Your task to perform on an android device: toggle priority inbox in the gmail app Image 0: 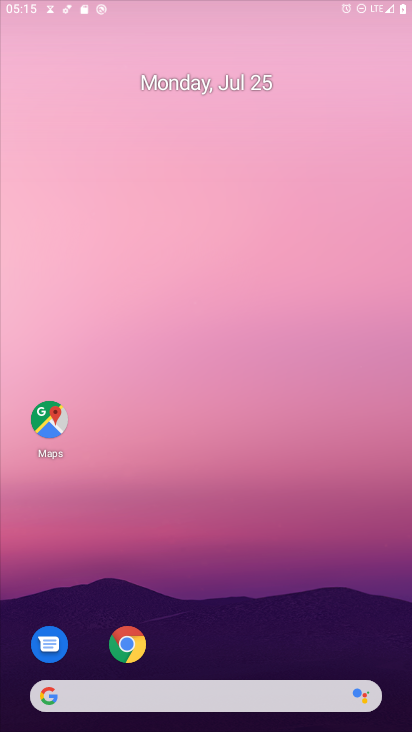
Step 0: press home button
Your task to perform on an android device: toggle priority inbox in the gmail app Image 1: 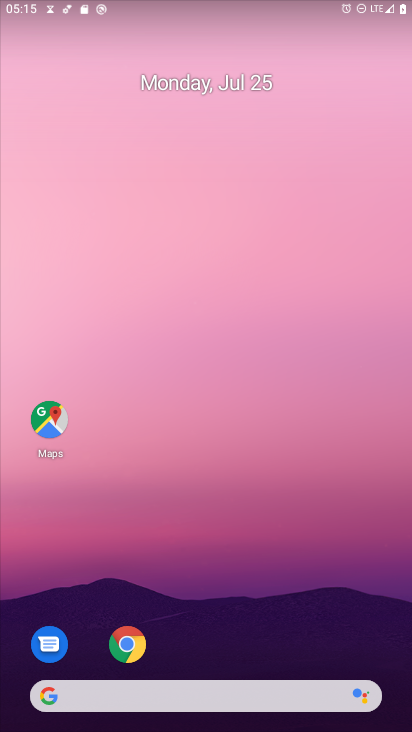
Step 1: drag from (267, 317) to (266, 82)
Your task to perform on an android device: toggle priority inbox in the gmail app Image 2: 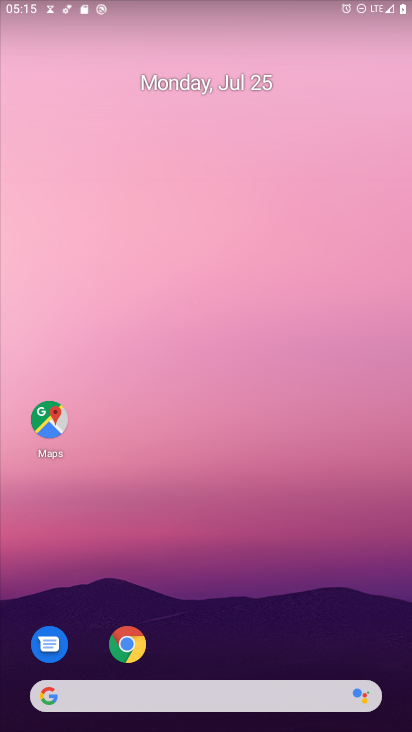
Step 2: drag from (264, 371) to (242, 20)
Your task to perform on an android device: toggle priority inbox in the gmail app Image 3: 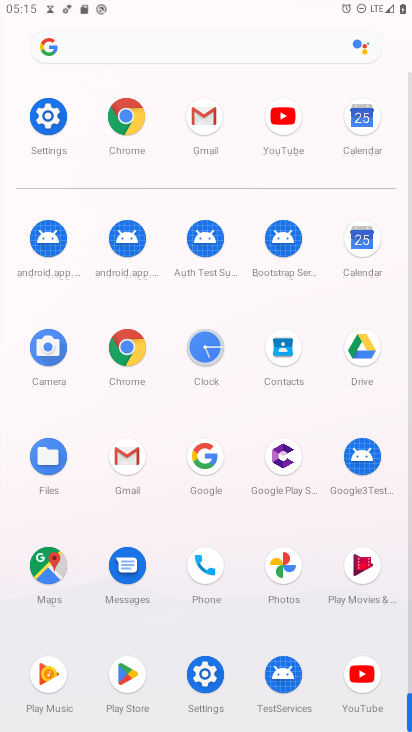
Step 3: click (198, 107)
Your task to perform on an android device: toggle priority inbox in the gmail app Image 4: 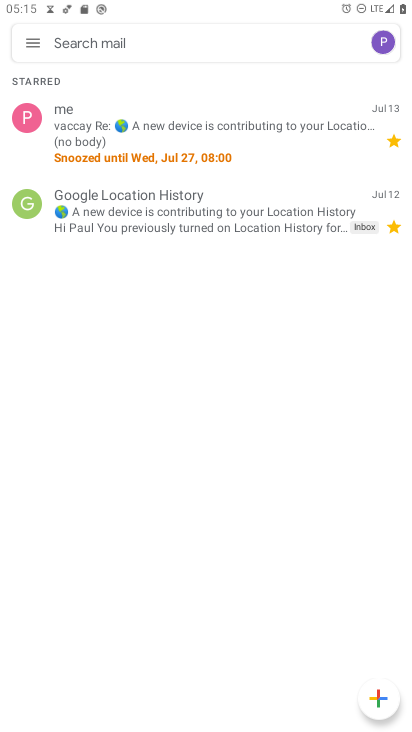
Step 4: click (36, 42)
Your task to perform on an android device: toggle priority inbox in the gmail app Image 5: 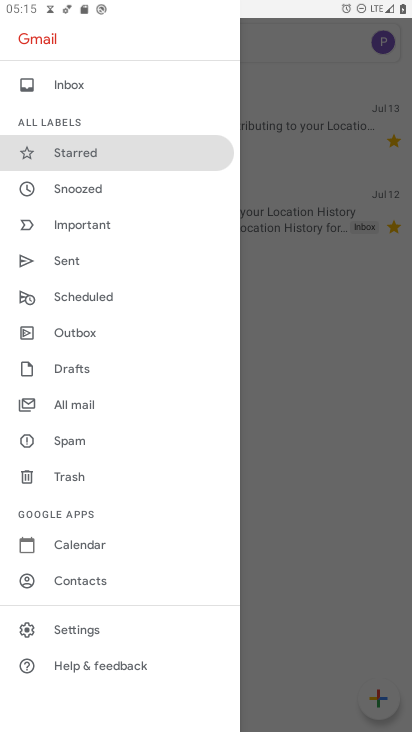
Step 5: click (101, 631)
Your task to perform on an android device: toggle priority inbox in the gmail app Image 6: 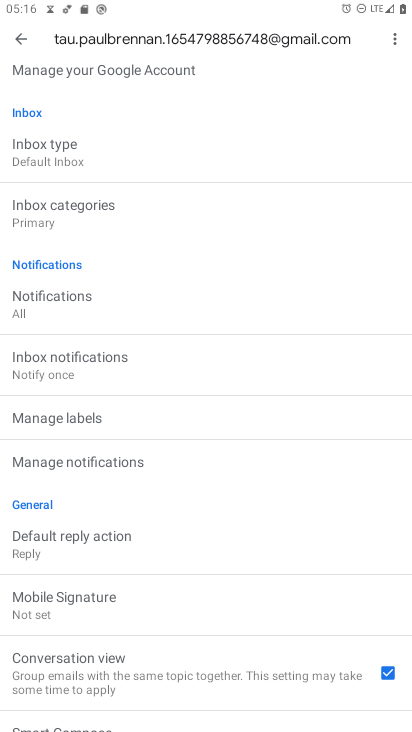
Step 6: click (60, 154)
Your task to perform on an android device: toggle priority inbox in the gmail app Image 7: 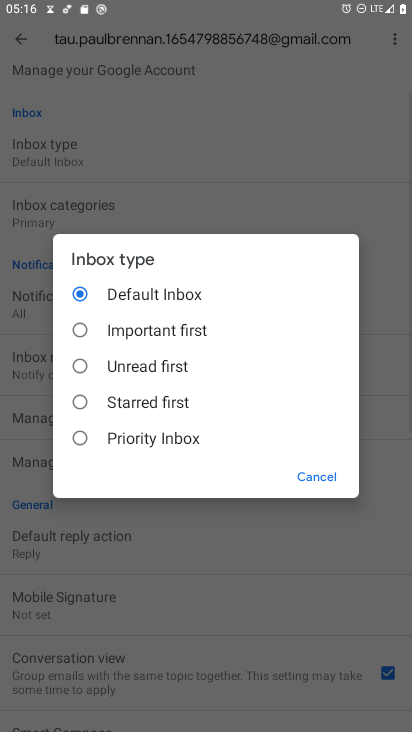
Step 7: click (74, 436)
Your task to perform on an android device: toggle priority inbox in the gmail app Image 8: 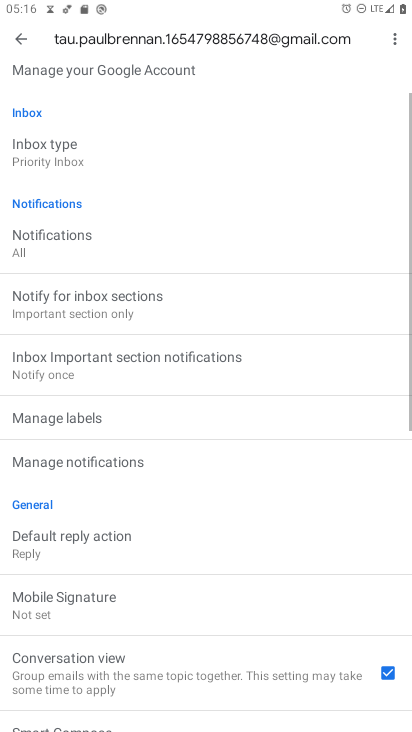
Step 8: task complete